Your task to perform on an android device: Open privacy settings Image 0: 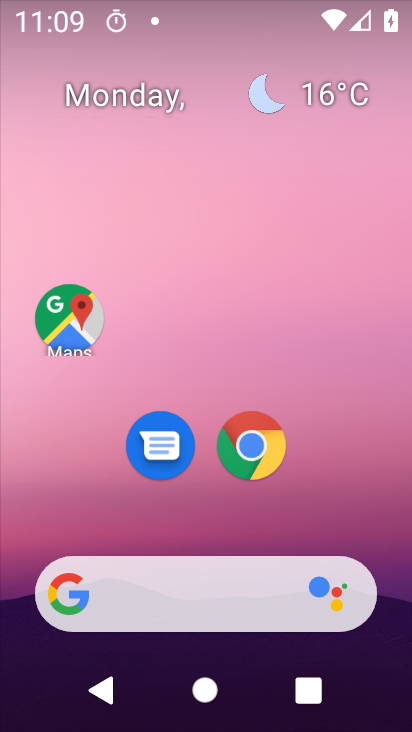
Step 0: drag from (211, 520) to (250, 0)
Your task to perform on an android device: Open privacy settings Image 1: 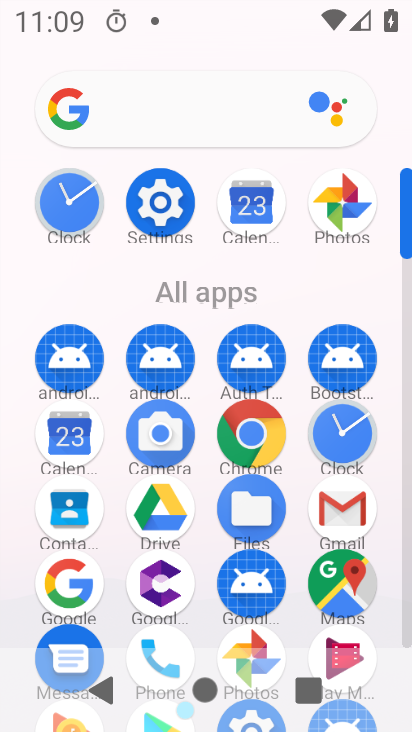
Step 1: click (157, 210)
Your task to perform on an android device: Open privacy settings Image 2: 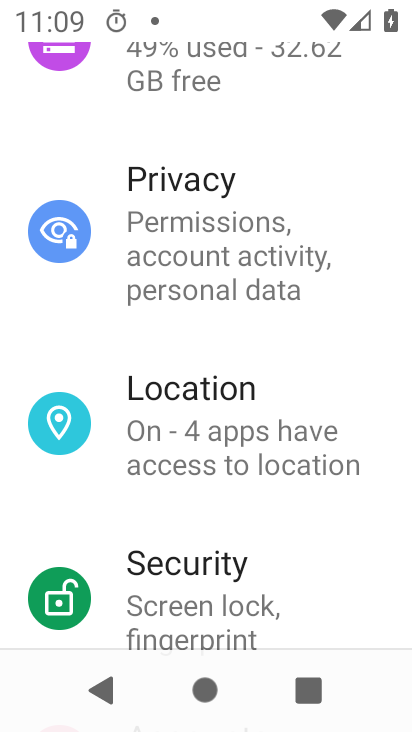
Step 2: drag from (192, 202) to (203, 474)
Your task to perform on an android device: Open privacy settings Image 3: 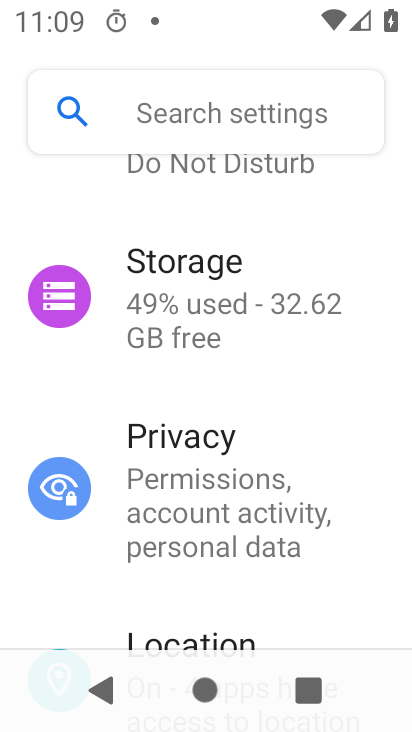
Step 3: click (209, 447)
Your task to perform on an android device: Open privacy settings Image 4: 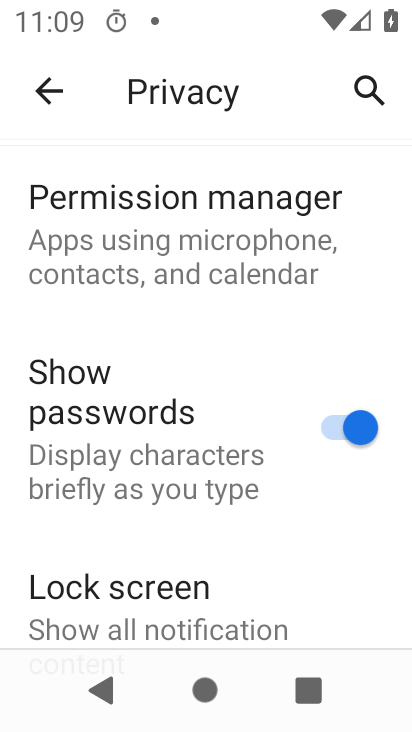
Step 4: task complete